Your task to perform on an android device: Open the phone app and click the voicemail tab. Image 0: 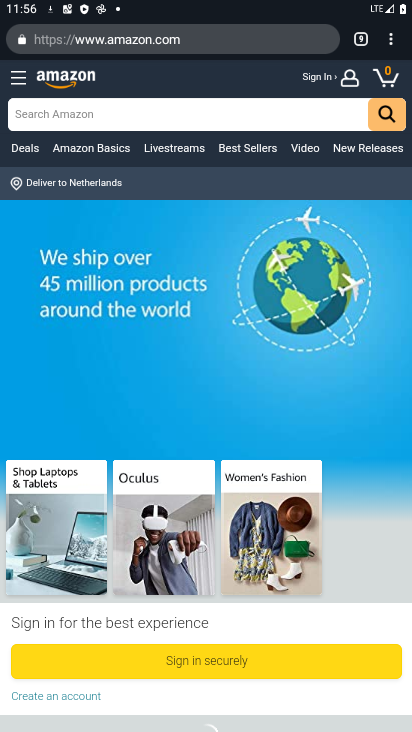
Step 0: press home button
Your task to perform on an android device: Open the phone app and click the voicemail tab. Image 1: 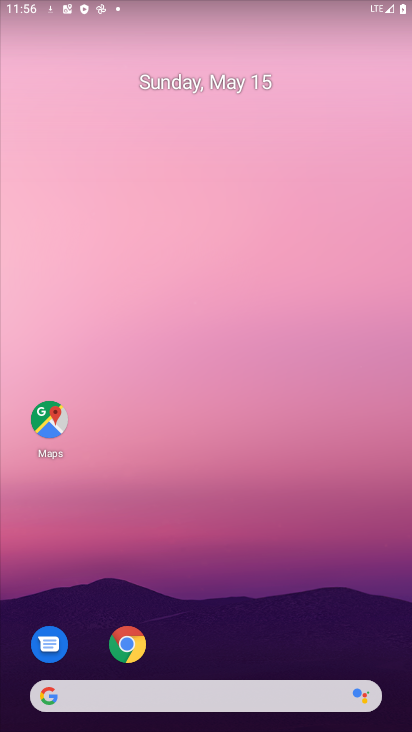
Step 1: drag from (235, 696) to (343, 387)
Your task to perform on an android device: Open the phone app and click the voicemail tab. Image 2: 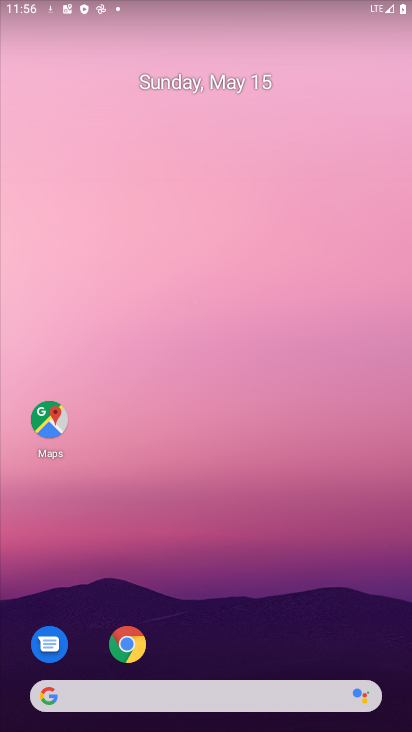
Step 2: drag from (174, 703) to (382, 208)
Your task to perform on an android device: Open the phone app and click the voicemail tab. Image 3: 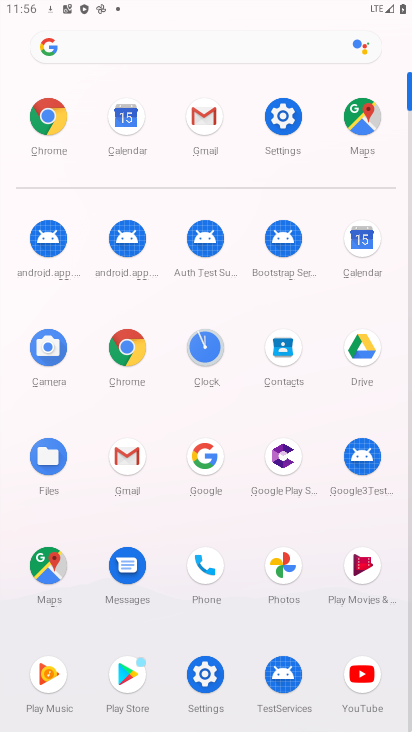
Step 3: click (191, 558)
Your task to perform on an android device: Open the phone app and click the voicemail tab. Image 4: 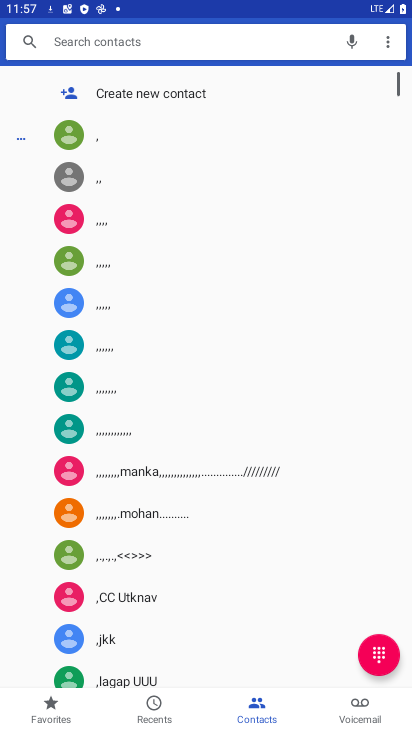
Step 4: click (358, 714)
Your task to perform on an android device: Open the phone app and click the voicemail tab. Image 5: 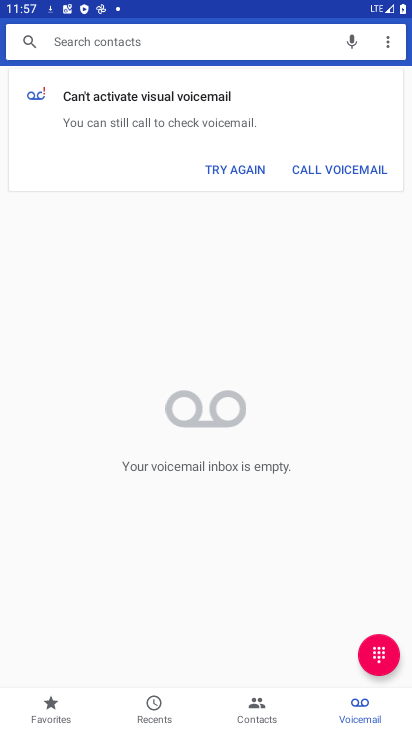
Step 5: task complete